Your task to perform on an android device: Search for seafood restaurants on Google Maps Image 0: 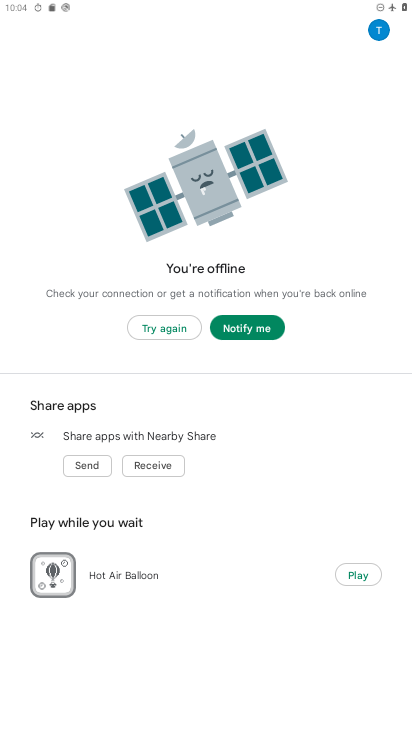
Step 0: press home button
Your task to perform on an android device: Search for seafood restaurants on Google Maps Image 1: 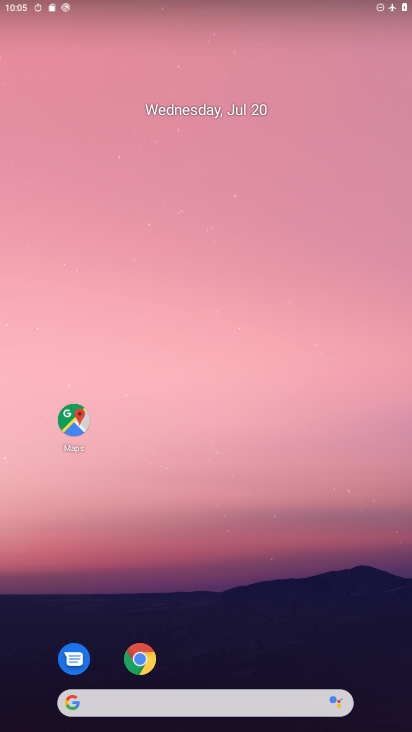
Step 1: drag from (215, 601) to (210, 122)
Your task to perform on an android device: Search for seafood restaurants on Google Maps Image 2: 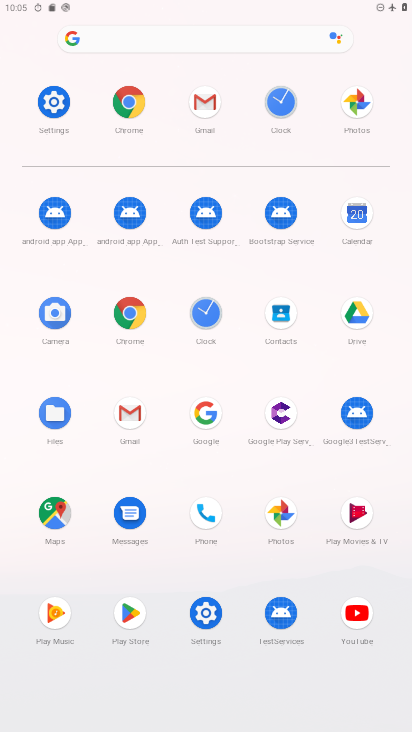
Step 2: click (60, 505)
Your task to perform on an android device: Search for seafood restaurants on Google Maps Image 3: 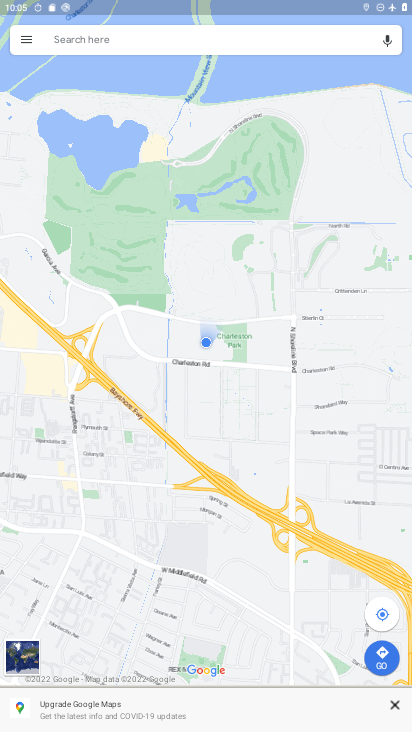
Step 3: click (151, 40)
Your task to perform on an android device: Search for seafood restaurants on Google Maps Image 4: 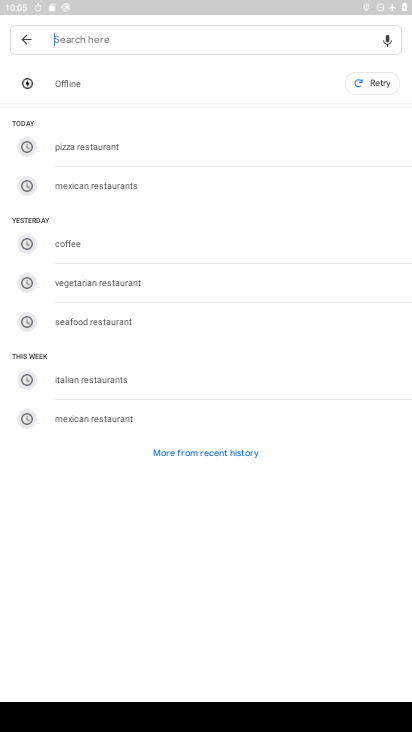
Step 4: type "seafood restaurants"
Your task to perform on an android device: Search for seafood restaurants on Google Maps Image 5: 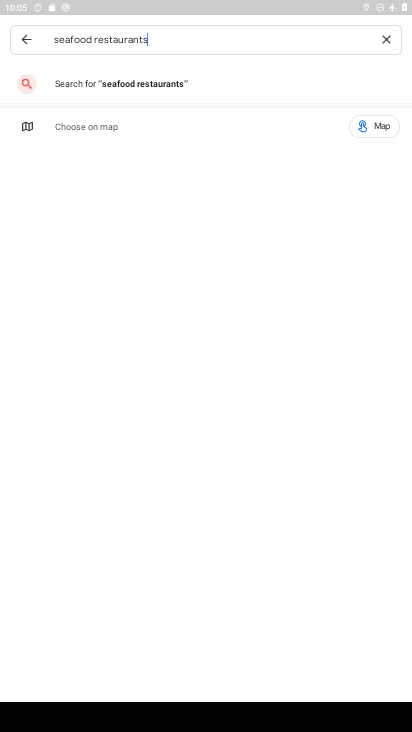
Step 5: click (157, 83)
Your task to perform on an android device: Search for seafood restaurants on Google Maps Image 6: 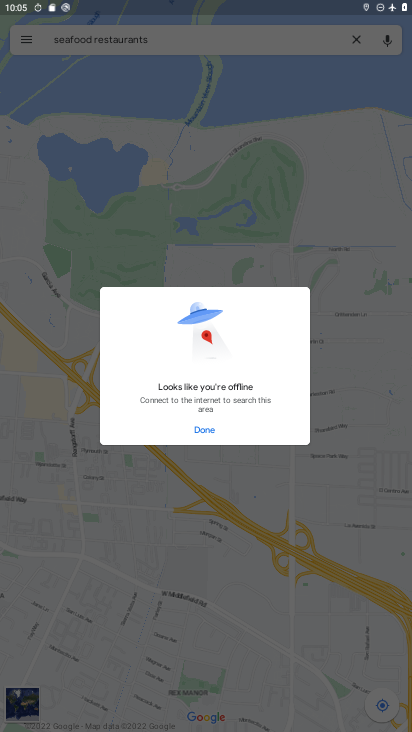
Step 6: task complete